Your task to perform on an android device: Open eBay Image 0: 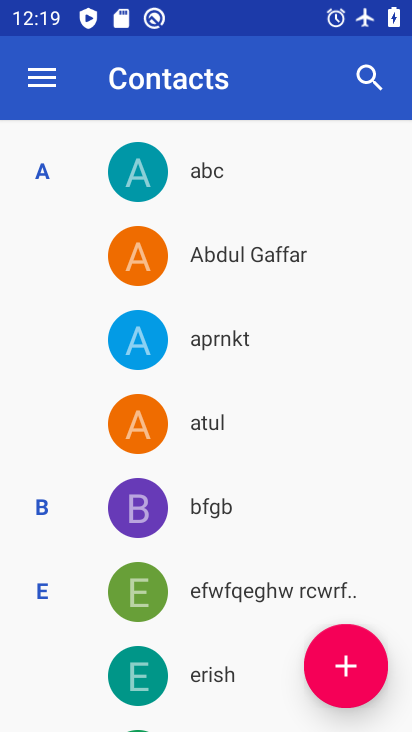
Step 0: press home button
Your task to perform on an android device: Open eBay Image 1: 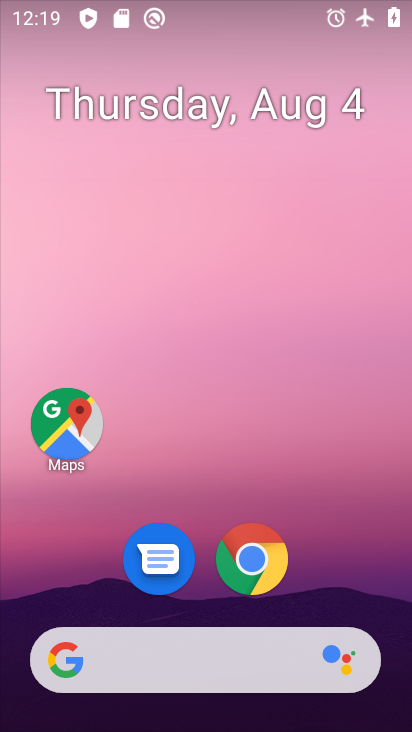
Step 1: click (253, 561)
Your task to perform on an android device: Open eBay Image 2: 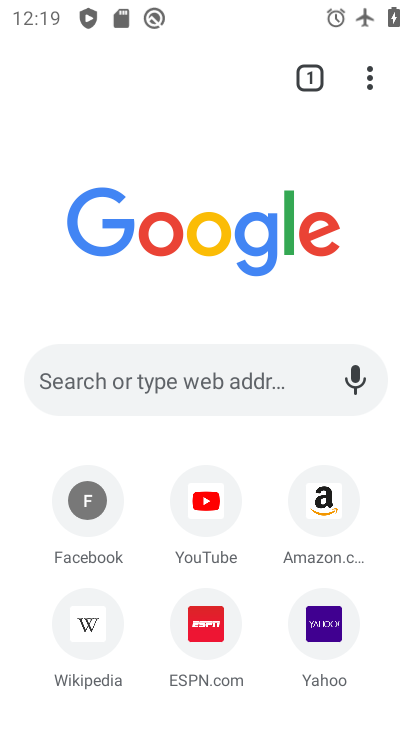
Step 2: click (245, 391)
Your task to perform on an android device: Open eBay Image 3: 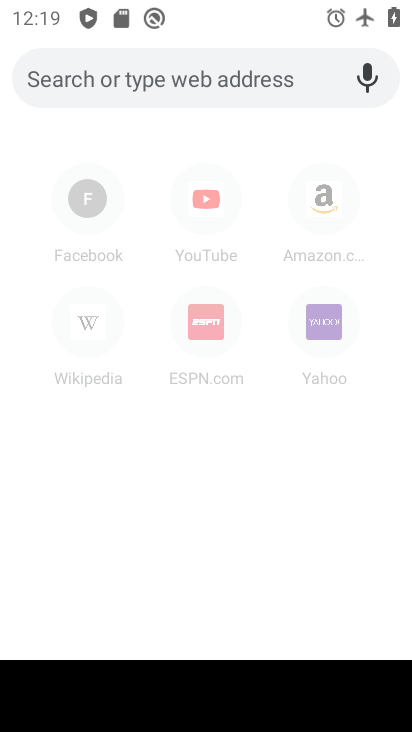
Step 3: type "eBay"
Your task to perform on an android device: Open eBay Image 4: 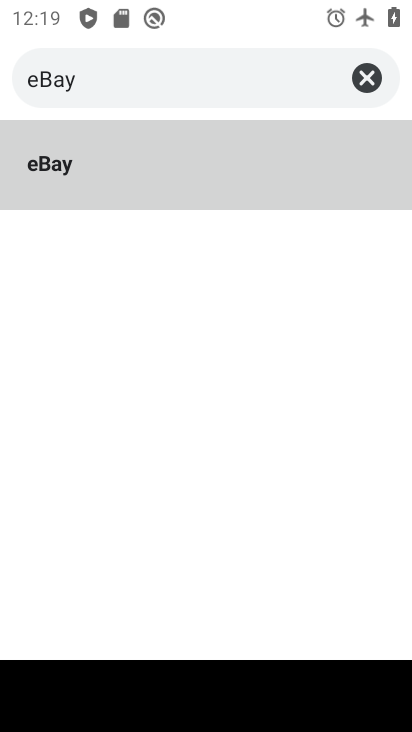
Step 4: click (72, 183)
Your task to perform on an android device: Open eBay Image 5: 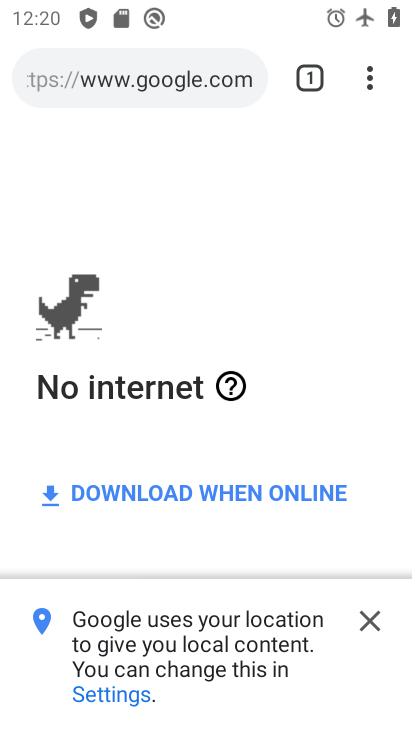
Step 5: task complete